Your task to perform on an android device: Open the calendar app, open the side menu, and click the "Day" option Image 0: 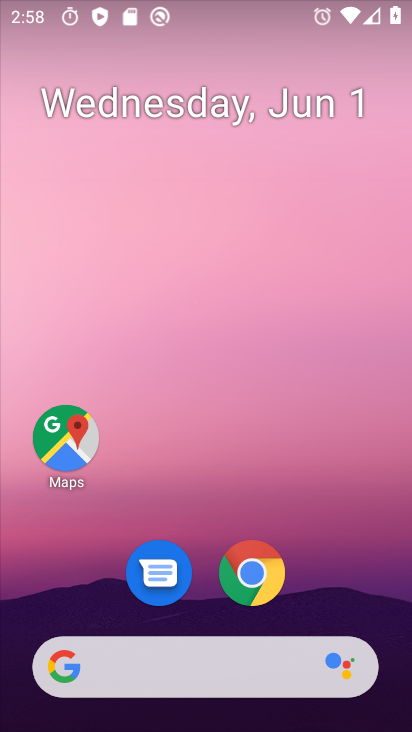
Step 0: drag from (223, 606) to (198, 229)
Your task to perform on an android device: Open the calendar app, open the side menu, and click the "Day" option Image 1: 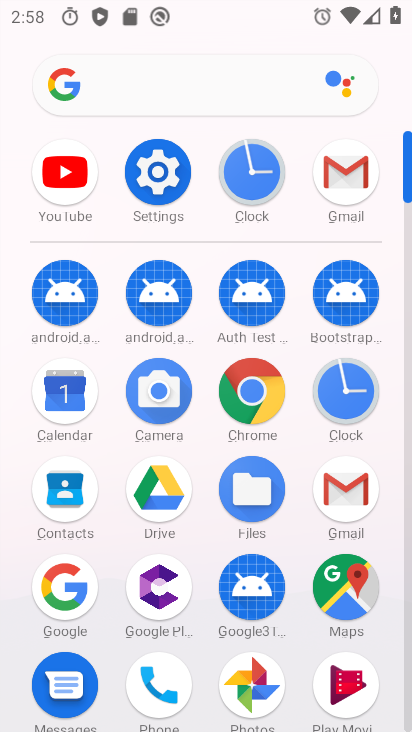
Step 1: click (68, 393)
Your task to perform on an android device: Open the calendar app, open the side menu, and click the "Day" option Image 2: 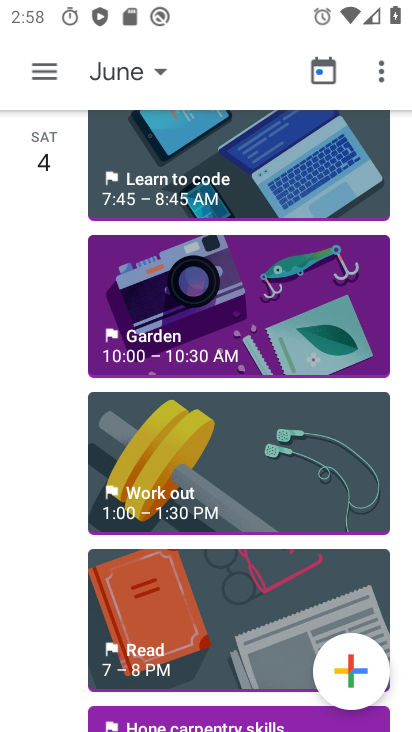
Step 2: click (35, 84)
Your task to perform on an android device: Open the calendar app, open the side menu, and click the "Day" option Image 3: 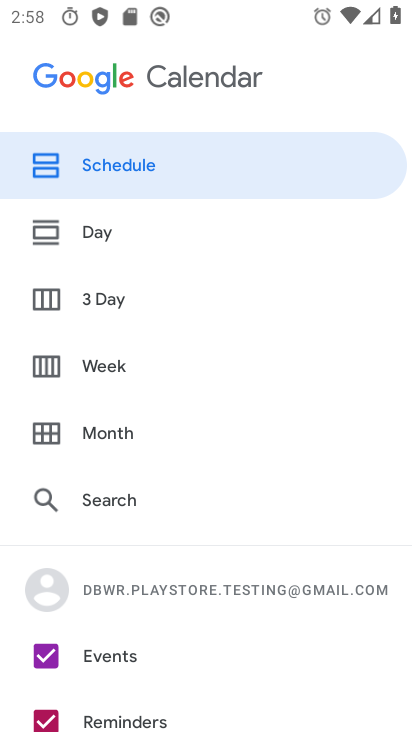
Step 3: click (121, 231)
Your task to perform on an android device: Open the calendar app, open the side menu, and click the "Day" option Image 4: 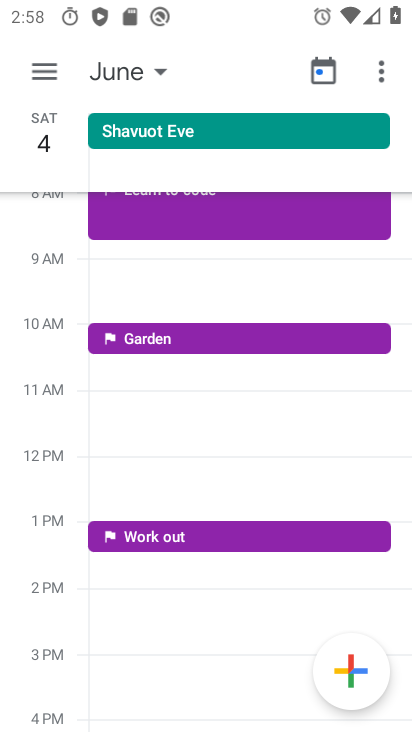
Step 4: task complete